Your task to perform on an android device: find snoozed emails in the gmail app Image 0: 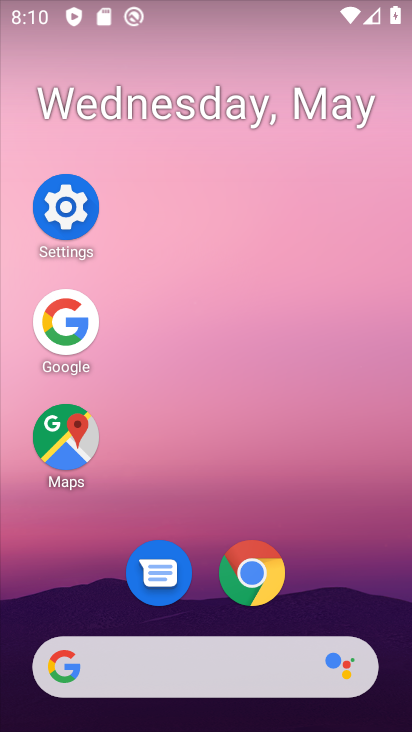
Step 0: drag from (319, 591) to (365, 163)
Your task to perform on an android device: find snoozed emails in the gmail app Image 1: 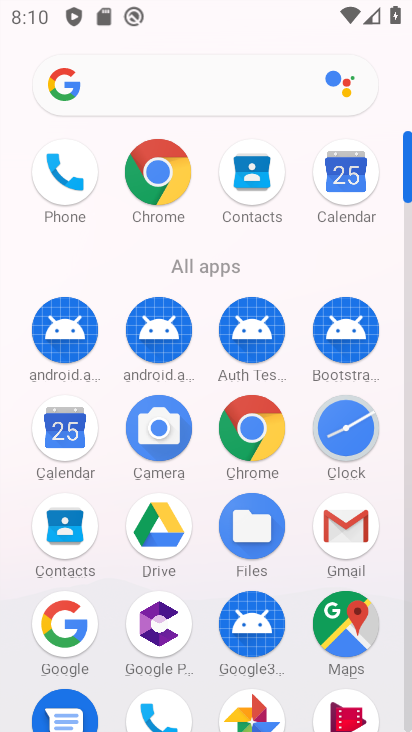
Step 1: drag from (345, 524) to (161, 300)
Your task to perform on an android device: find snoozed emails in the gmail app Image 2: 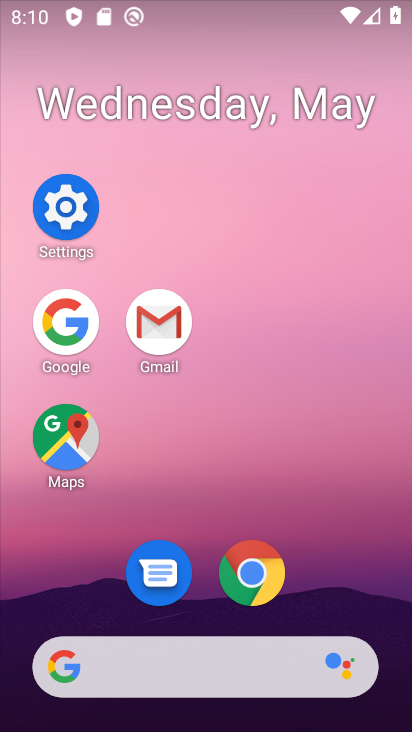
Step 2: click (169, 337)
Your task to perform on an android device: find snoozed emails in the gmail app Image 3: 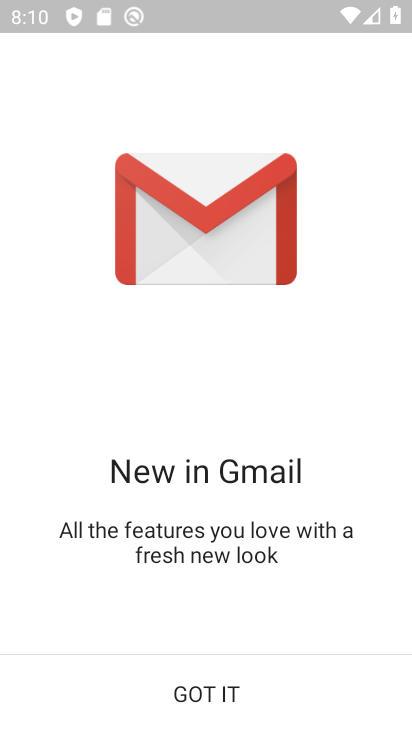
Step 3: click (227, 706)
Your task to perform on an android device: find snoozed emails in the gmail app Image 4: 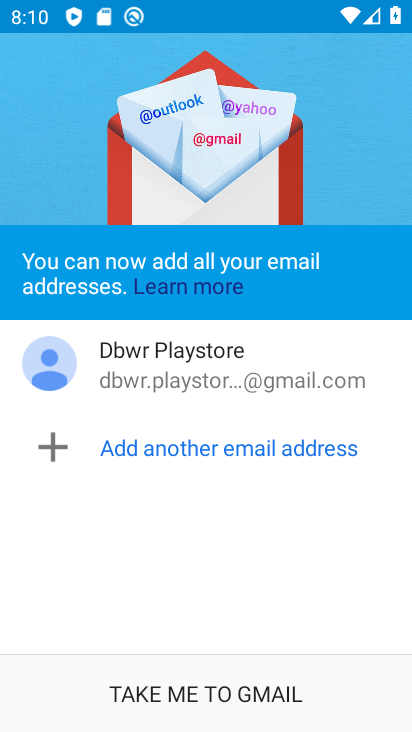
Step 4: click (227, 706)
Your task to perform on an android device: find snoozed emails in the gmail app Image 5: 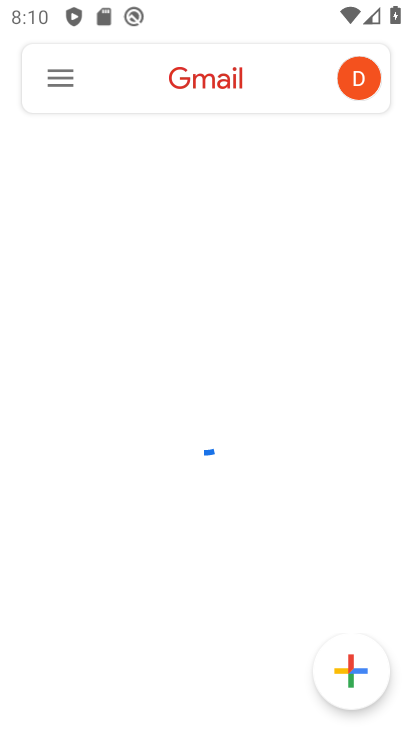
Step 5: click (58, 76)
Your task to perform on an android device: find snoozed emails in the gmail app Image 6: 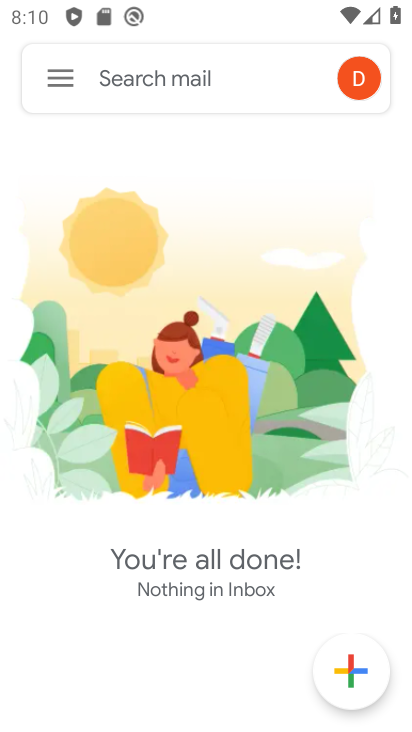
Step 6: click (52, 106)
Your task to perform on an android device: find snoozed emails in the gmail app Image 7: 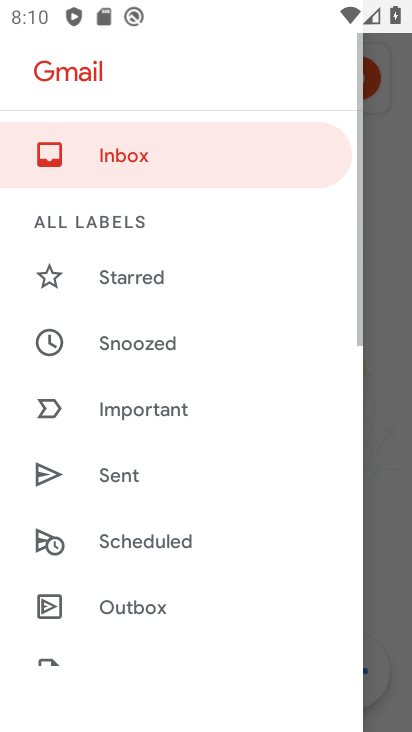
Step 7: drag from (169, 206) to (232, 571)
Your task to perform on an android device: find snoozed emails in the gmail app Image 8: 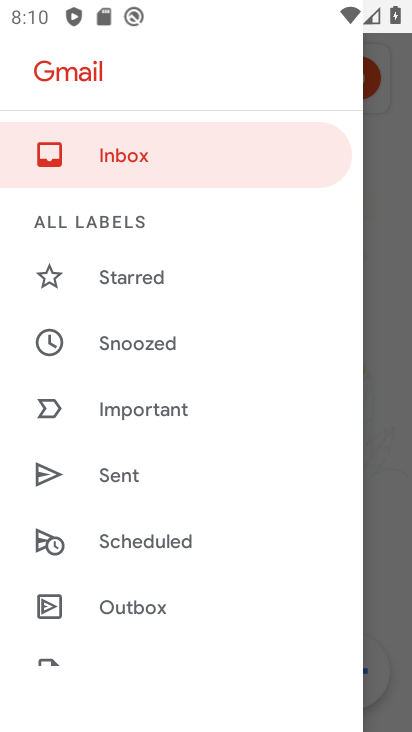
Step 8: drag from (246, 524) to (296, 261)
Your task to perform on an android device: find snoozed emails in the gmail app Image 9: 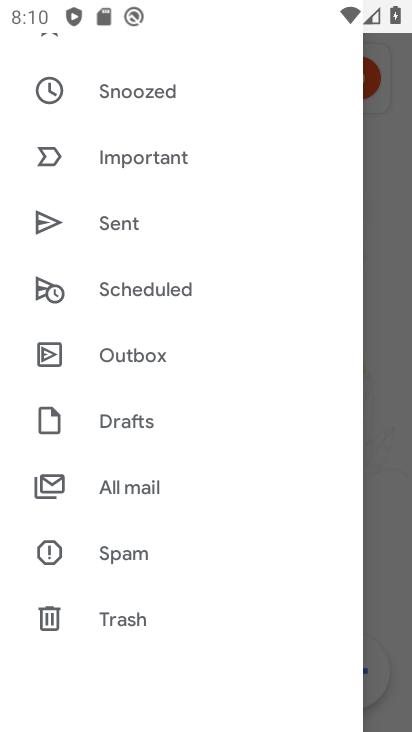
Step 9: drag from (251, 526) to (258, 156)
Your task to perform on an android device: find snoozed emails in the gmail app Image 10: 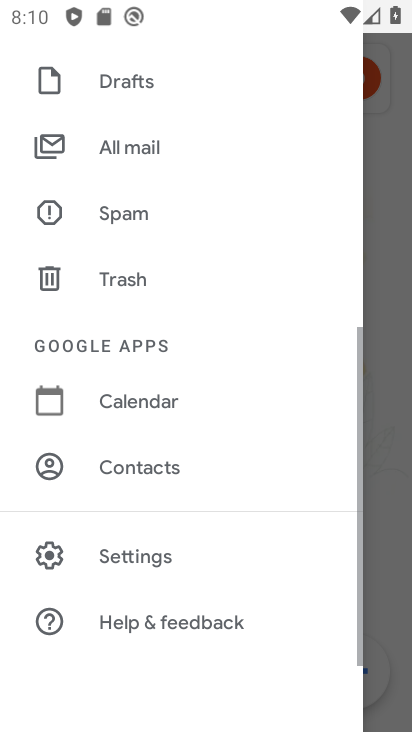
Step 10: drag from (214, 449) to (214, 112)
Your task to perform on an android device: find snoozed emails in the gmail app Image 11: 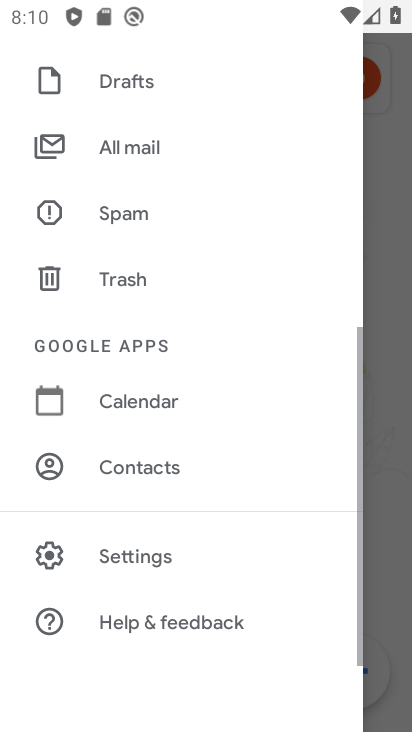
Step 11: drag from (216, 183) to (214, 587)
Your task to perform on an android device: find snoozed emails in the gmail app Image 12: 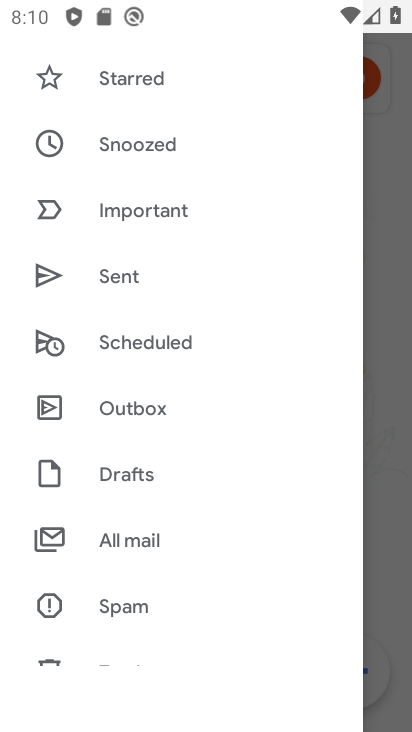
Step 12: click (245, 164)
Your task to perform on an android device: find snoozed emails in the gmail app Image 13: 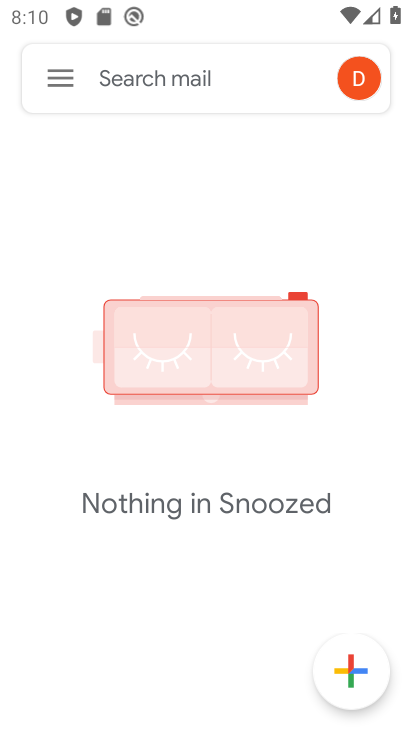
Step 13: task complete